Your task to perform on an android device: Open privacy settings Image 0: 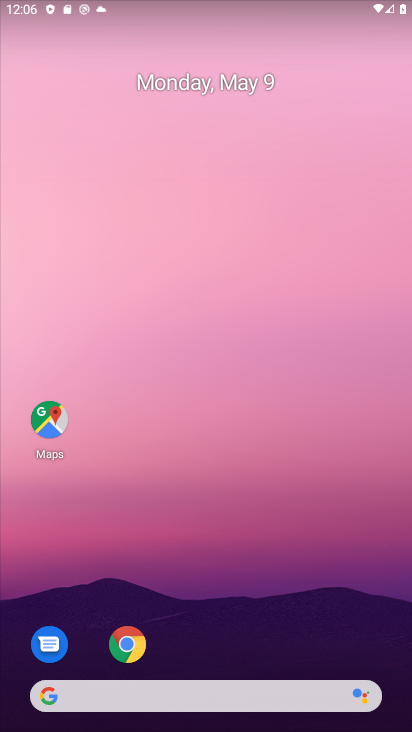
Step 0: drag from (251, 661) to (210, 9)
Your task to perform on an android device: Open privacy settings Image 1: 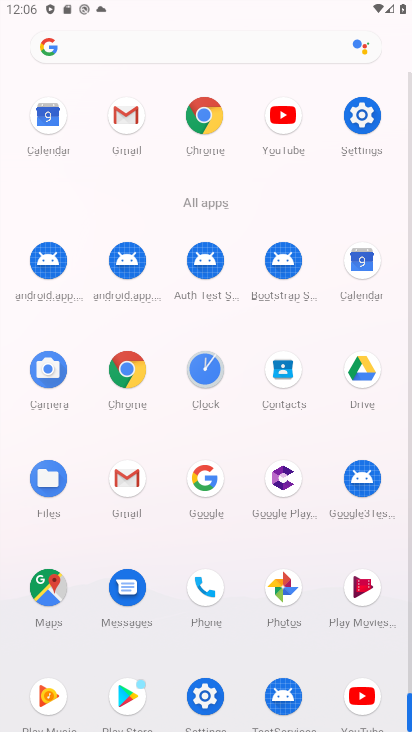
Step 1: click (215, 694)
Your task to perform on an android device: Open privacy settings Image 2: 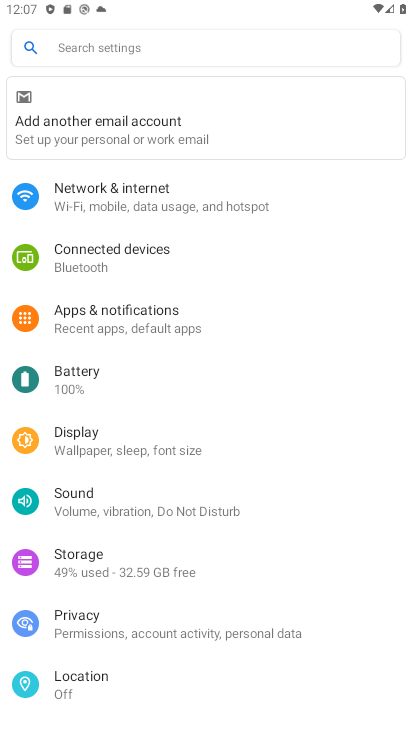
Step 2: drag from (165, 612) to (142, 443)
Your task to perform on an android device: Open privacy settings Image 3: 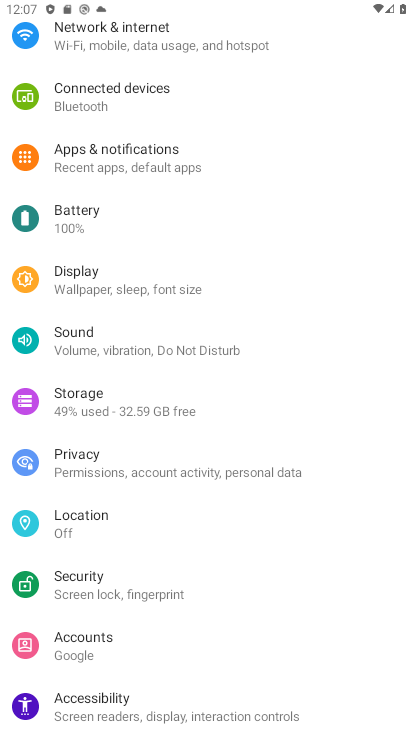
Step 3: click (103, 477)
Your task to perform on an android device: Open privacy settings Image 4: 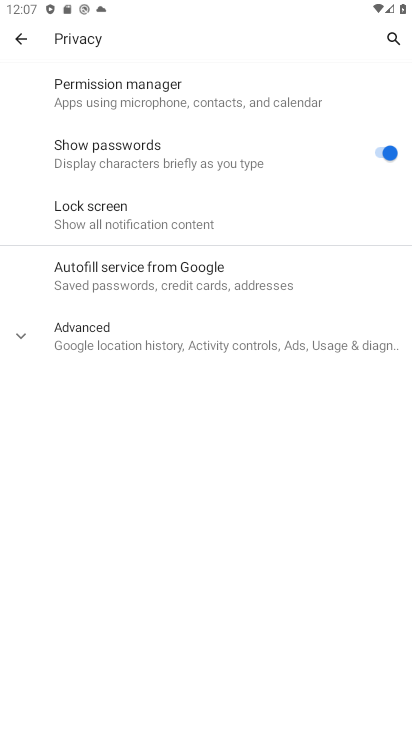
Step 4: task complete